Your task to perform on an android device: Show me the alarms in the clock app Image 0: 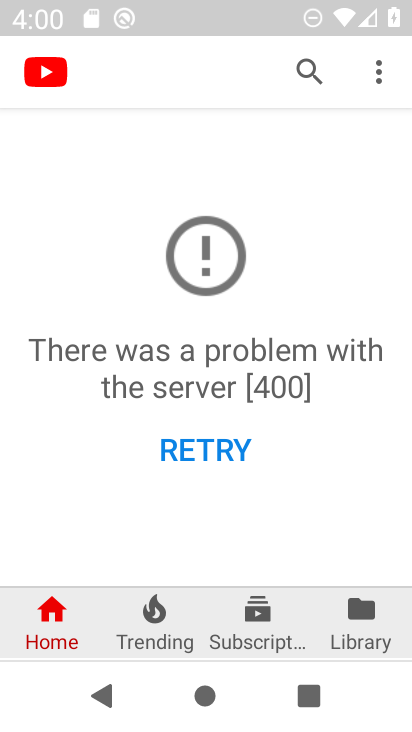
Step 0: press back button
Your task to perform on an android device: Show me the alarms in the clock app Image 1: 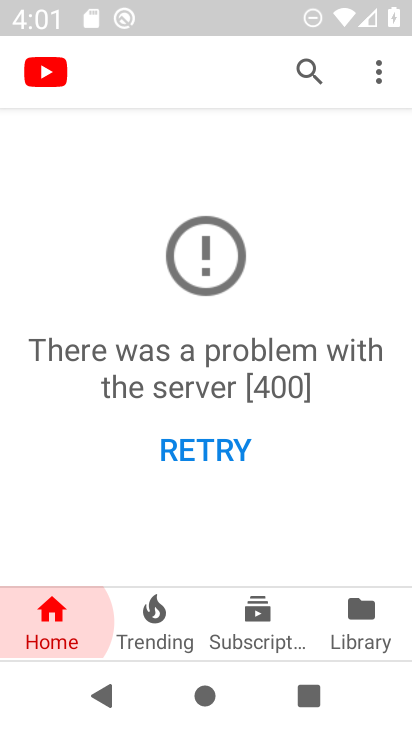
Step 1: press back button
Your task to perform on an android device: Show me the alarms in the clock app Image 2: 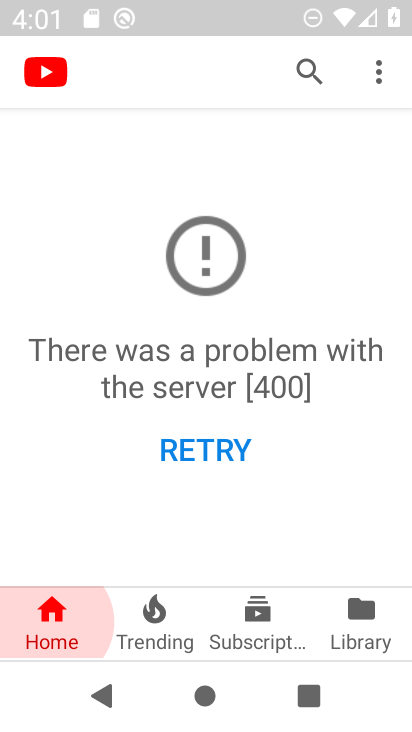
Step 2: press back button
Your task to perform on an android device: Show me the alarms in the clock app Image 3: 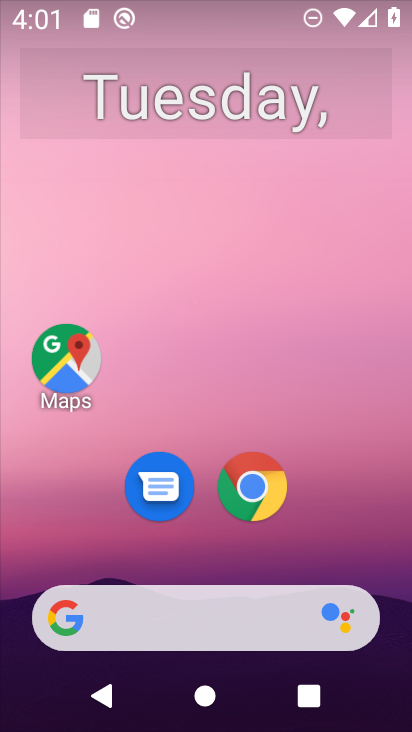
Step 3: drag from (140, 581) to (261, 4)
Your task to perform on an android device: Show me the alarms in the clock app Image 4: 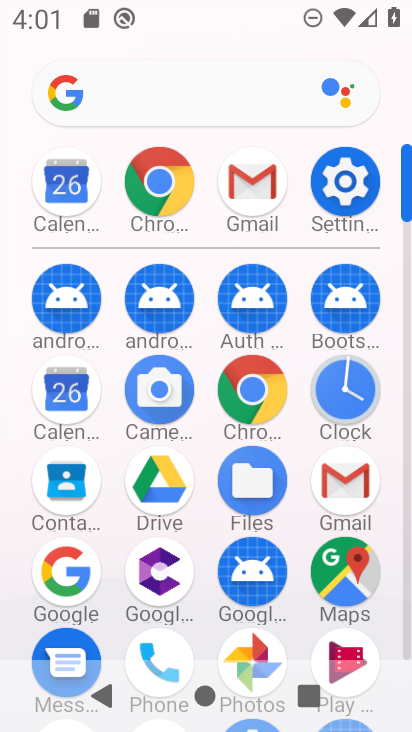
Step 4: click (337, 400)
Your task to perform on an android device: Show me the alarms in the clock app Image 5: 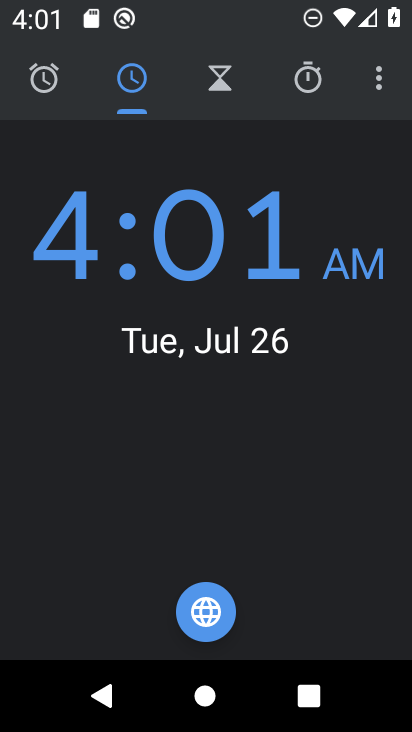
Step 5: click (52, 76)
Your task to perform on an android device: Show me the alarms in the clock app Image 6: 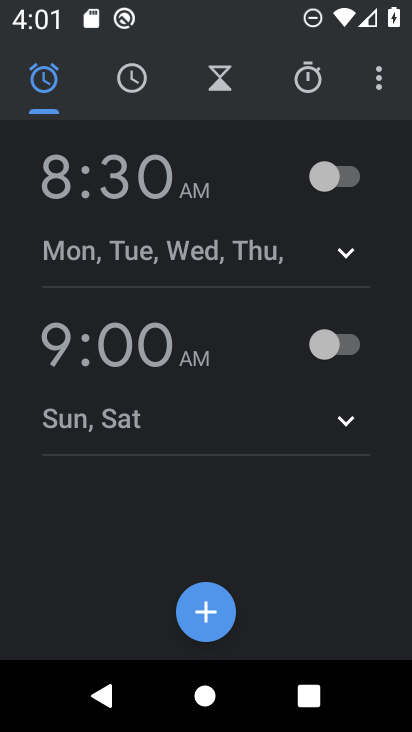
Step 6: task complete